Your task to perform on an android device: turn on bluetooth scan Image 0: 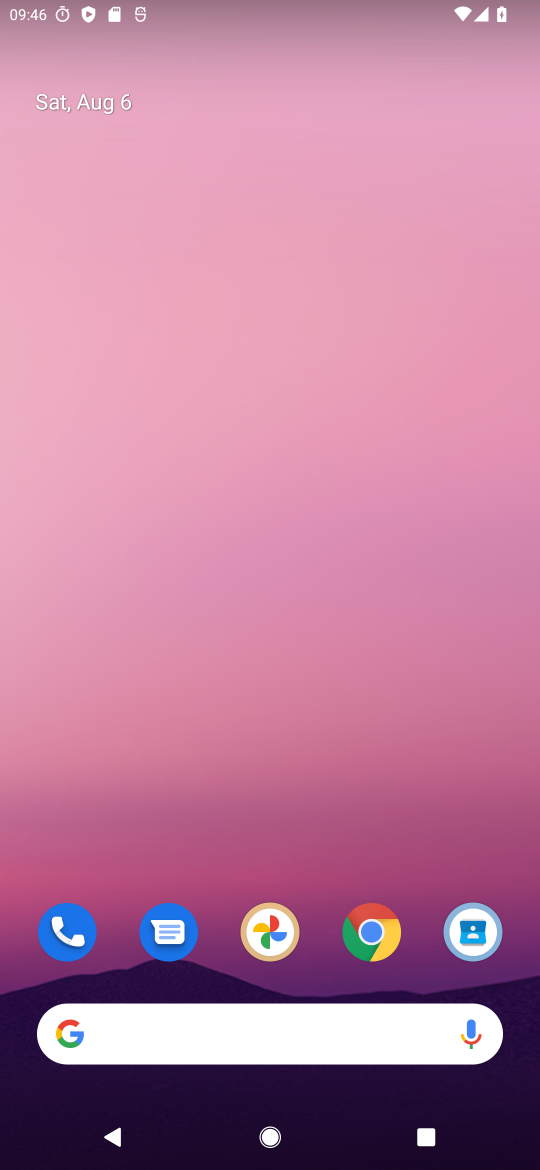
Step 0: drag from (216, 1034) to (379, 115)
Your task to perform on an android device: turn on bluetooth scan Image 1: 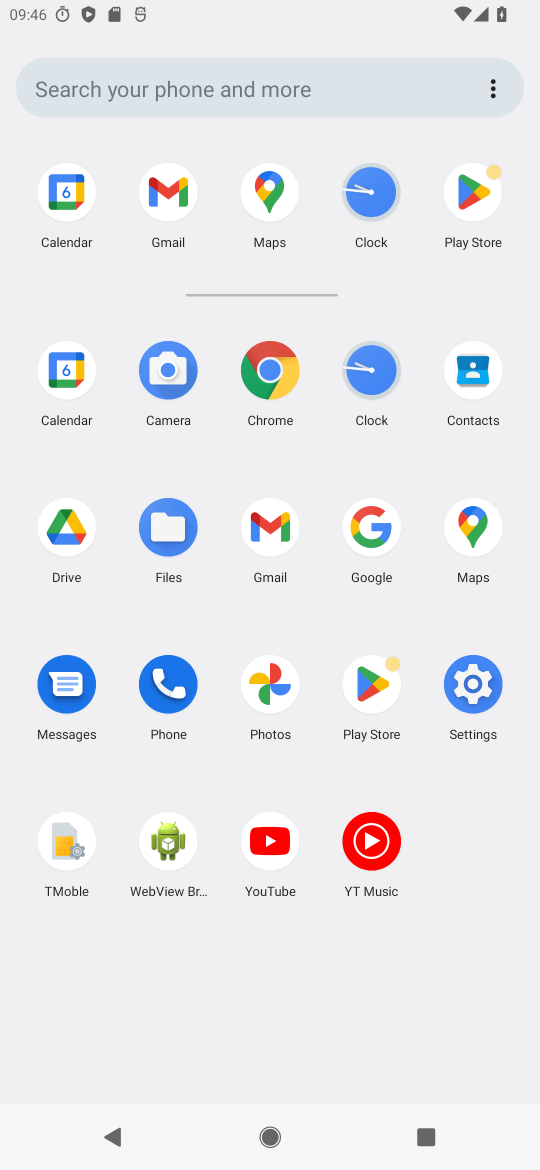
Step 1: click (482, 686)
Your task to perform on an android device: turn on bluetooth scan Image 2: 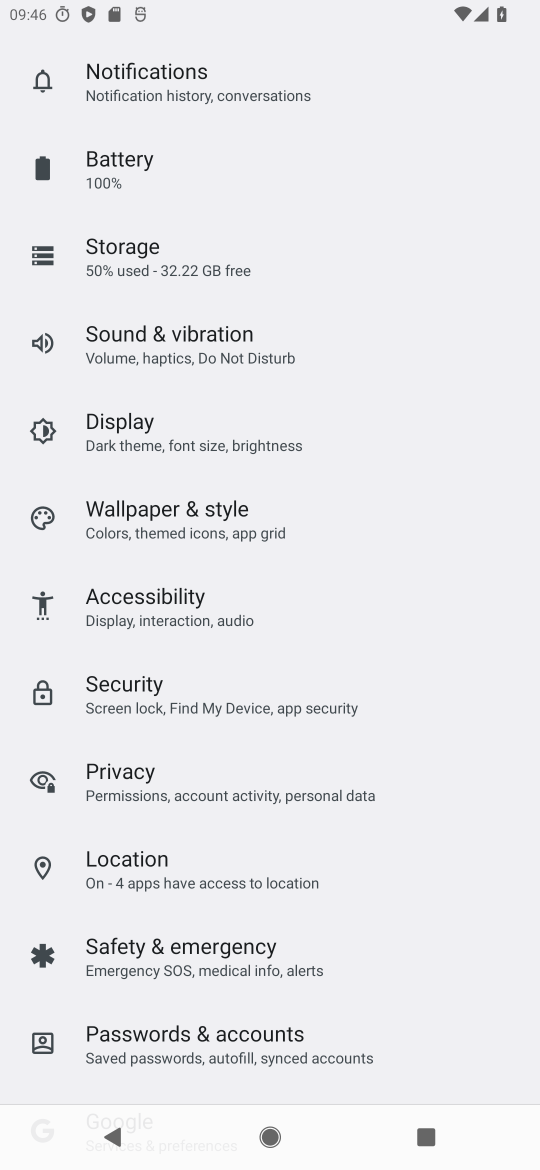
Step 2: drag from (361, 224) to (341, 794)
Your task to perform on an android device: turn on bluetooth scan Image 3: 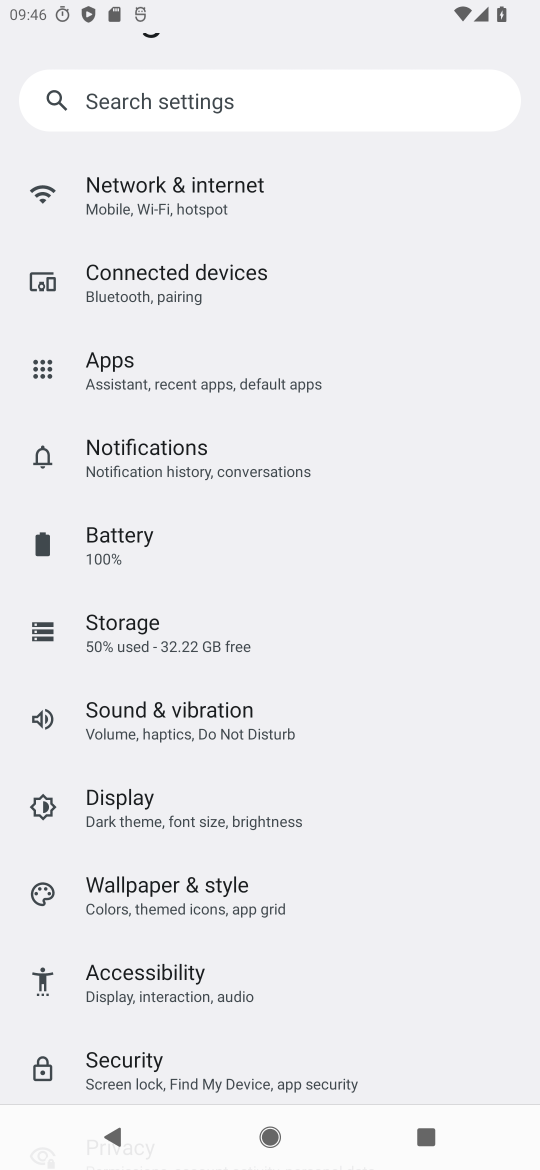
Step 3: drag from (270, 995) to (441, 182)
Your task to perform on an android device: turn on bluetooth scan Image 4: 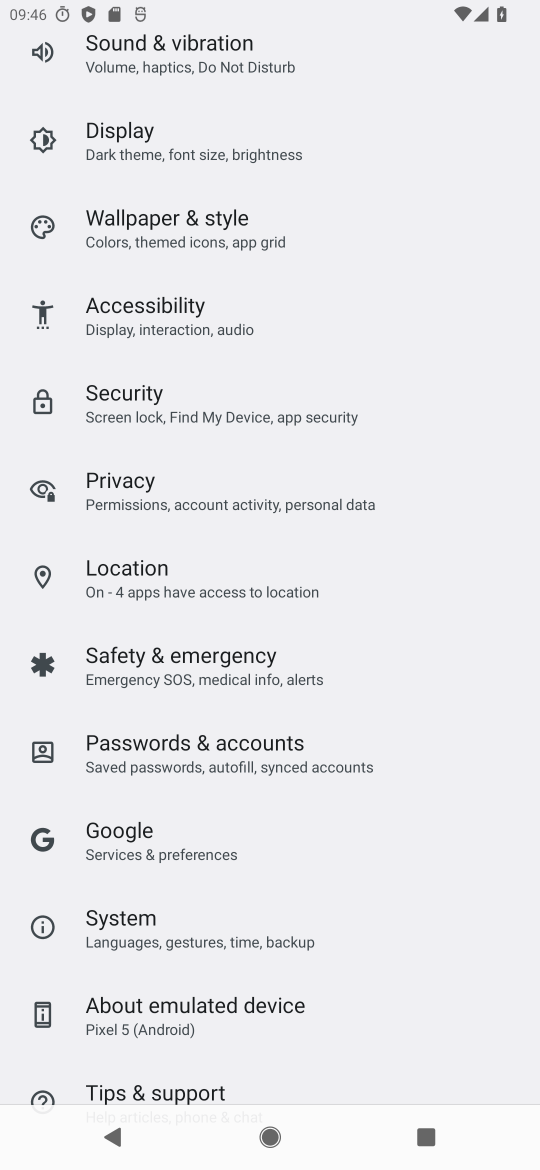
Step 4: click (150, 585)
Your task to perform on an android device: turn on bluetooth scan Image 5: 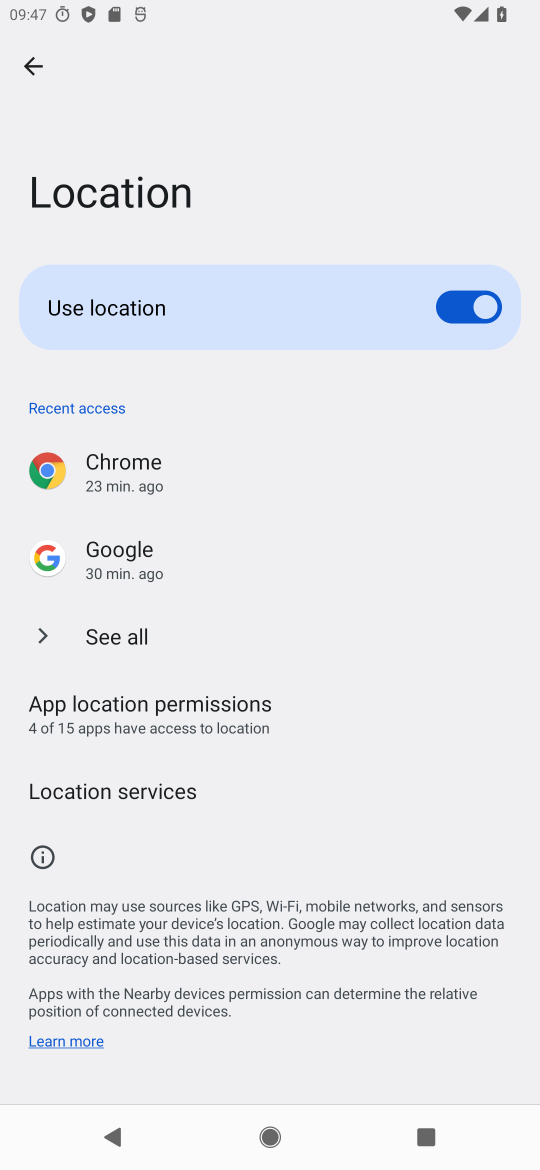
Step 5: click (122, 795)
Your task to perform on an android device: turn on bluetooth scan Image 6: 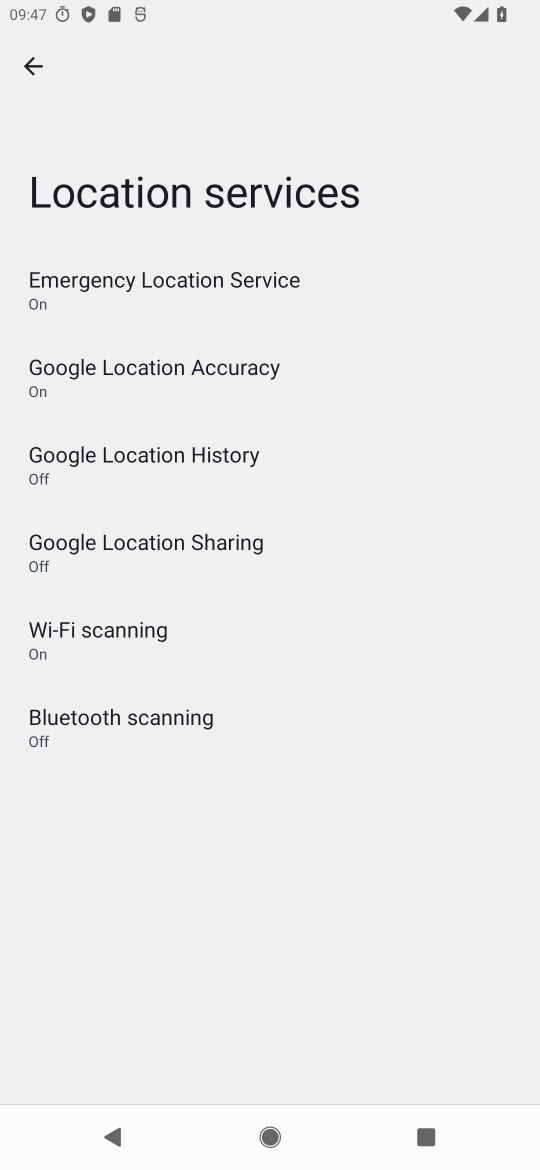
Step 6: click (166, 634)
Your task to perform on an android device: turn on bluetooth scan Image 7: 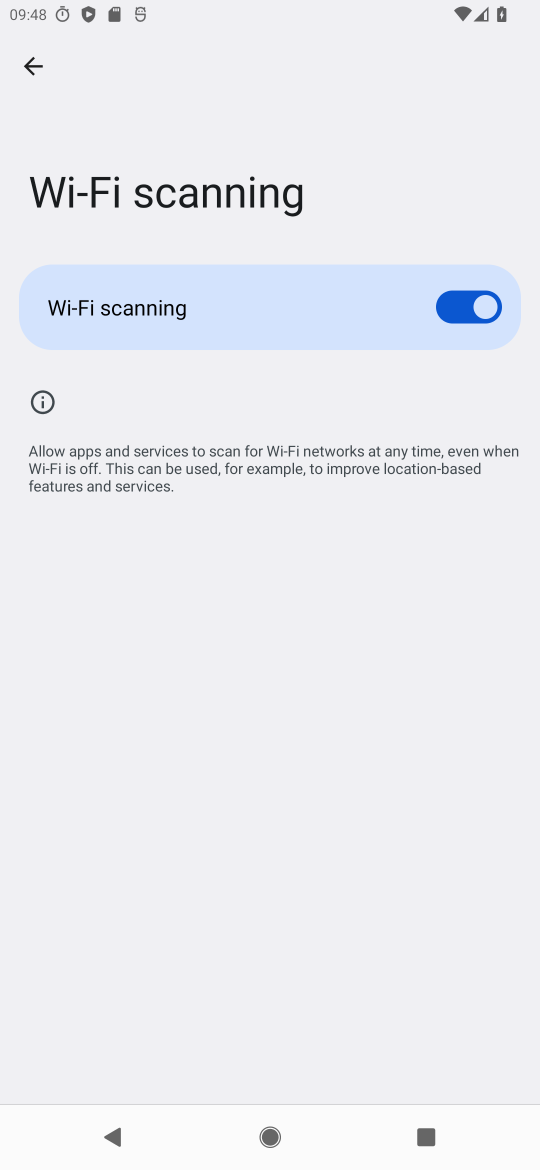
Step 7: task complete